Your task to perform on an android device: Add "apple airpods pro" to the cart on newegg Image 0: 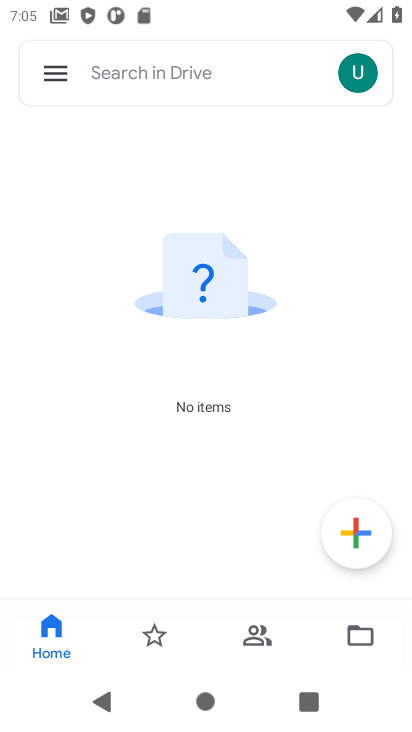
Step 0: press home button
Your task to perform on an android device: Add "apple airpods pro" to the cart on newegg Image 1: 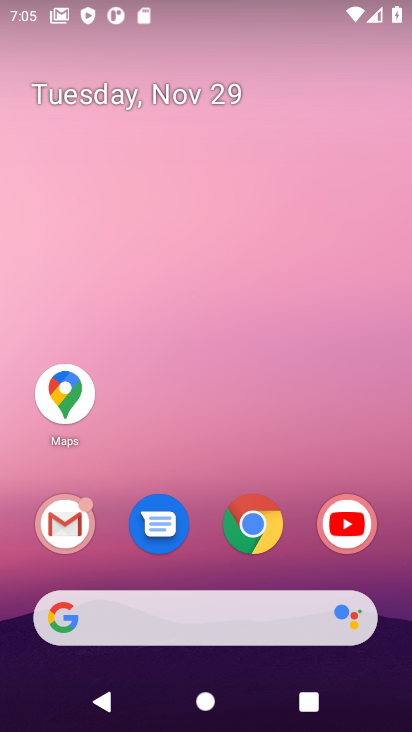
Step 1: click (255, 528)
Your task to perform on an android device: Add "apple airpods pro" to the cart on newegg Image 2: 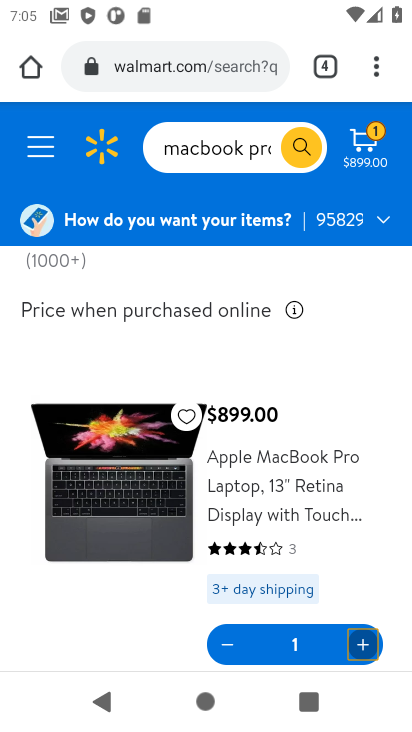
Step 2: click (173, 68)
Your task to perform on an android device: Add "apple airpods pro" to the cart on newegg Image 3: 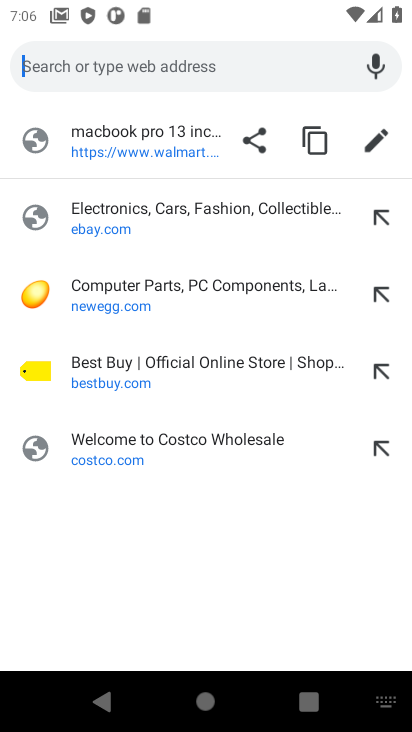
Step 3: click (103, 304)
Your task to perform on an android device: Add "apple airpods pro" to the cart on newegg Image 4: 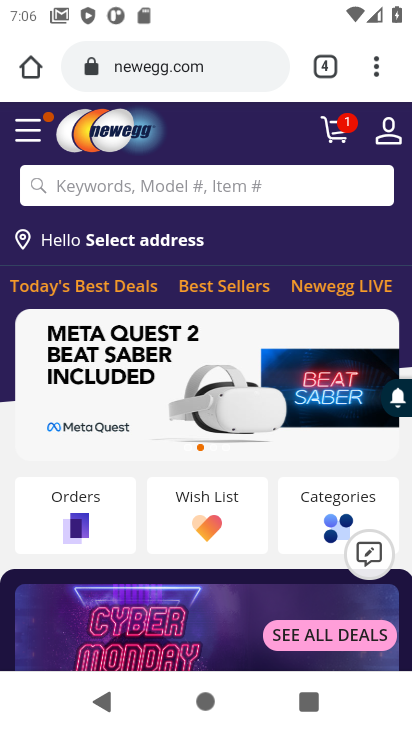
Step 4: click (150, 190)
Your task to perform on an android device: Add "apple airpods pro" to the cart on newegg Image 5: 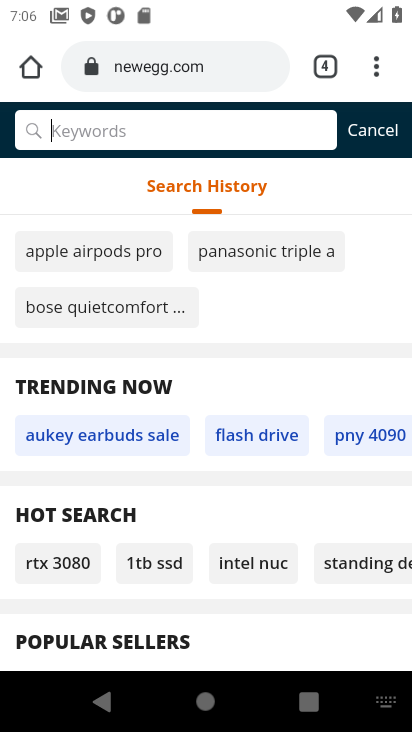
Step 5: type "apple airpods pro"
Your task to perform on an android device: Add "apple airpods pro" to the cart on newegg Image 6: 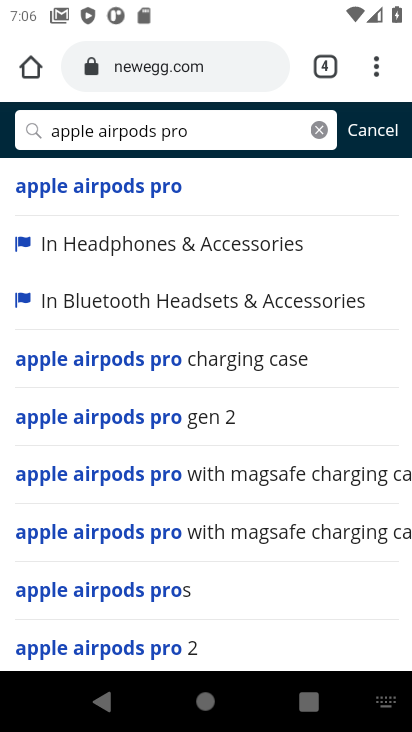
Step 6: click (107, 192)
Your task to perform on an android device: Add "apple airpods pro" to the cart on newegg Image 7: 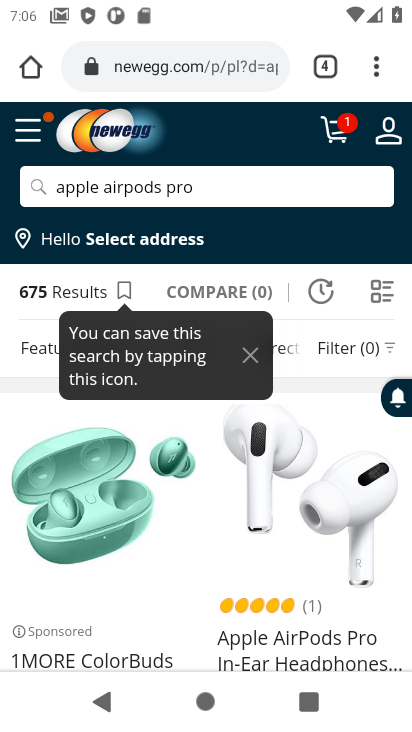
Step 7: drag from (171, 473) to (157, 271)
Your task to perform on an android device: Add "apple airpods pro" to the cart on newegg Image 8: 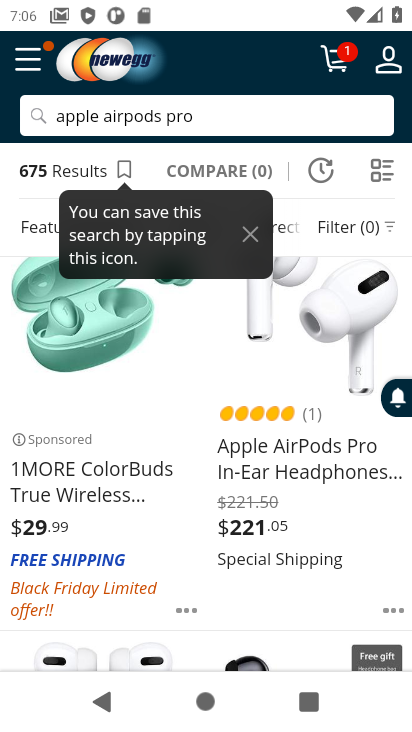
Step 8: click (313, 358)
Your task to perform on an android device: Add "apple airpods pro" to the cart on newegg Image 9: 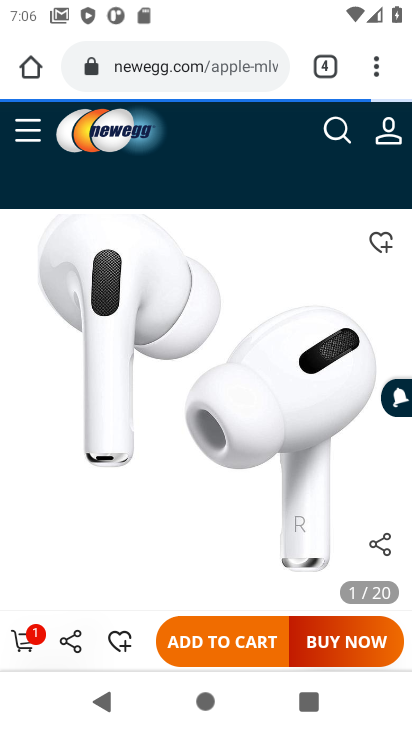
Step 9: click (217, 650)
Your task to perform on an android device: Add "apple airpods pro" to the cart on newegg Image 10: 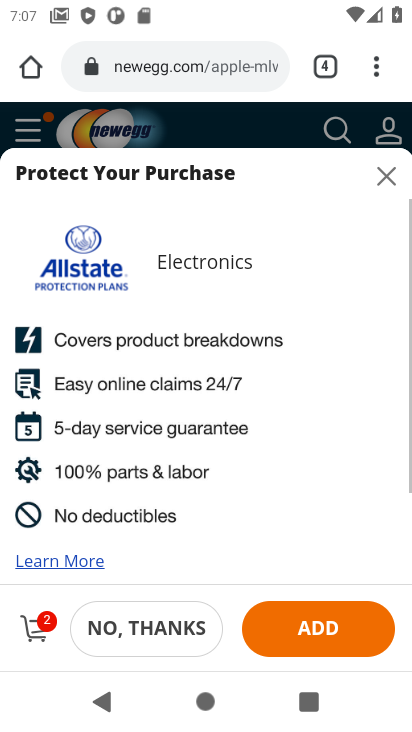
Step 10: task complete